Your task to perform on an android device: Go to sound settings Image 0: 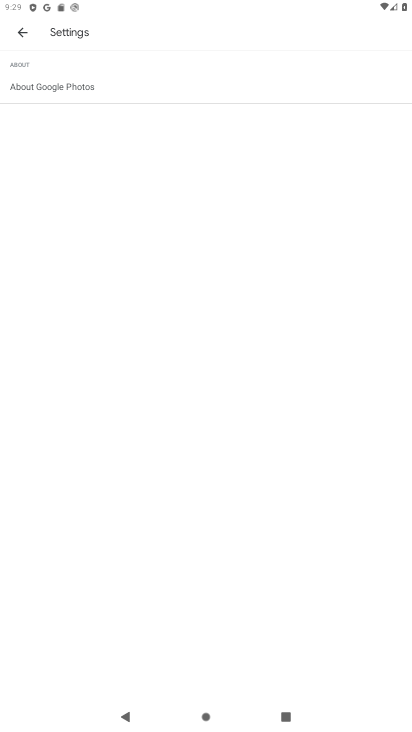
Step 0: press home button
Your task to perform on an android device: Go to sound settings Image 1: 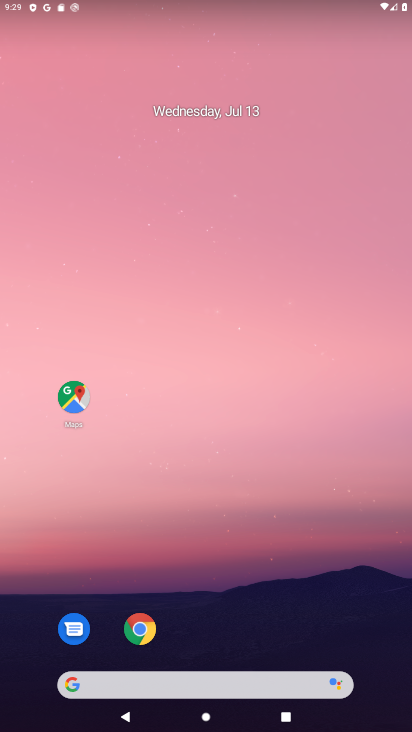
Step 1: drag from (338, 620) to (288, 177)
Your task to perform on an android device: Go to sound settings Image 2: 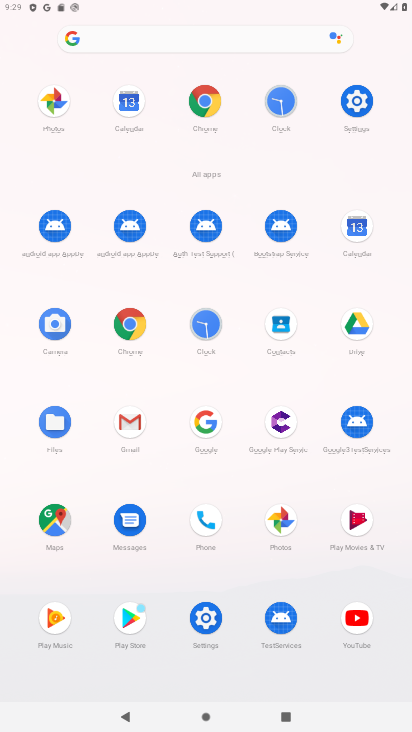
Step 2: click (352, 123)
Your task to perform on an android device: Go to sound settings Image 3: 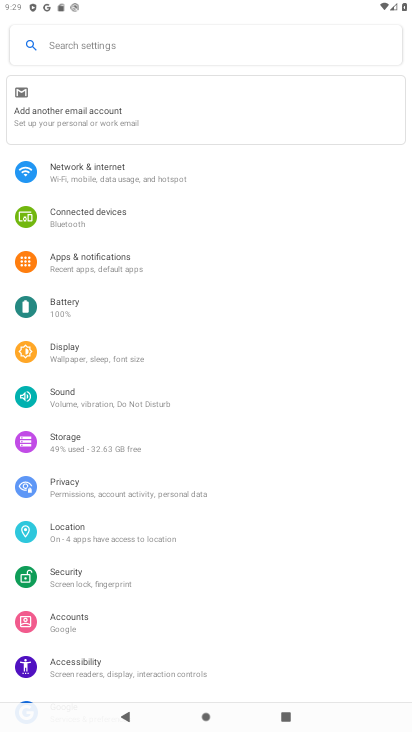
Step 3: click (147, 388)
Your task to perform on an android device: Go to sound settings Image 4: 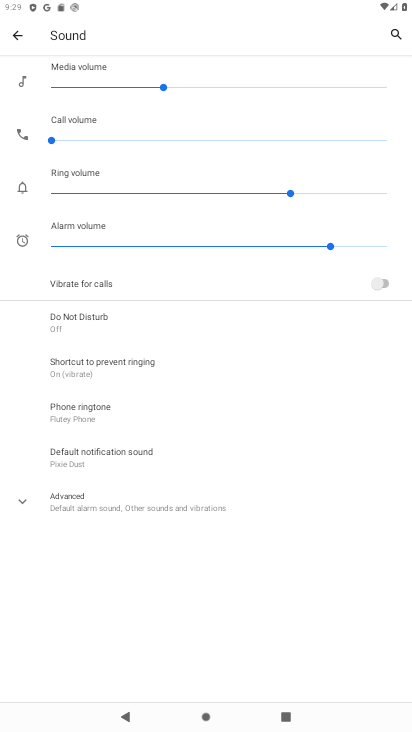
Step 4: task complete